Your task to perform on an android device: see sites visited before in the chrome app Image 0: 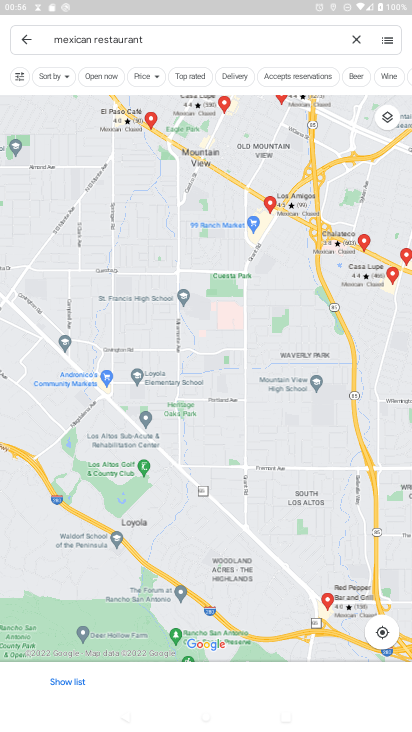
Step 0: click (189, 206)
Your task to perform on an android device: see sites visited before in the chrome app Image 1: 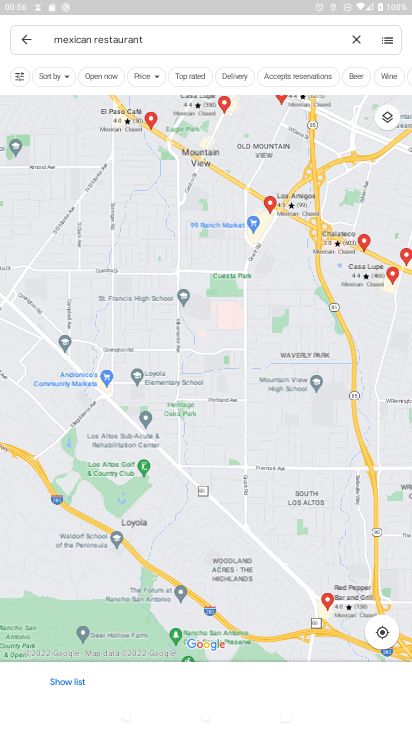
Step 1: click (15, 26)
Your task to perform on an android device: see sites visited before in the chrome app Image 2: 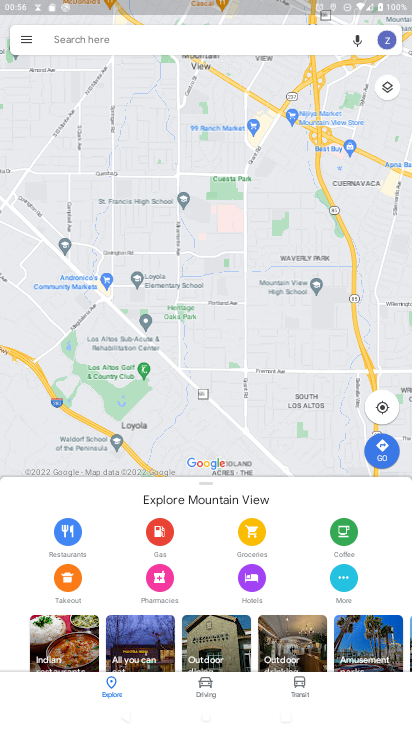
Step 2: press home button
Your task to perform on an android device: see sites visited before in the chrome app Image 3: 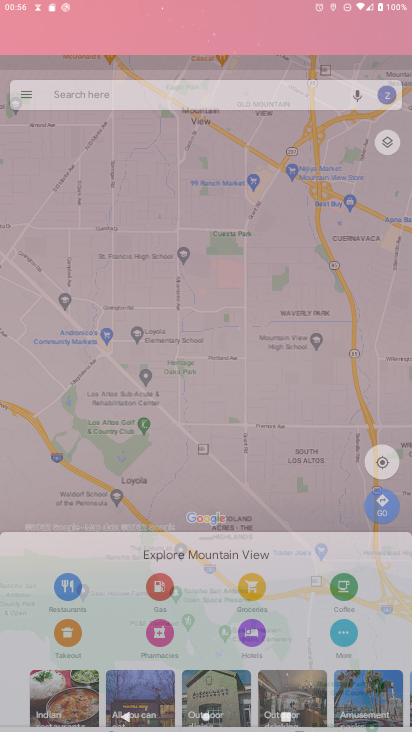
Step 3: drag from (159, 582) to (142, 2)
Your task to perform on an android device: see sites visited before in the chrome app Image 4: 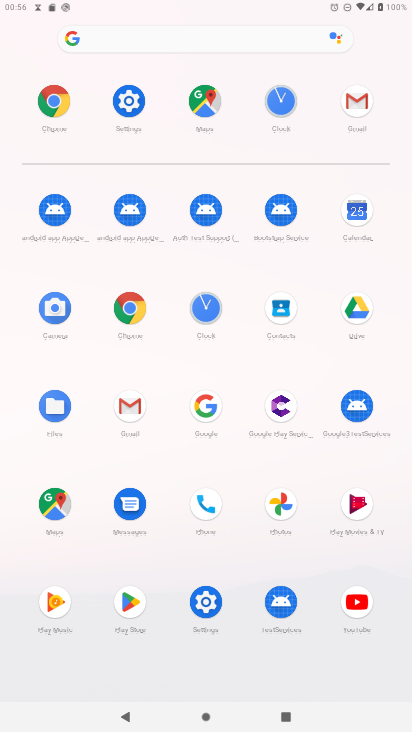
Step 4: click (136, 303)
Your task to perform on an android device: see sites visited before in the chrome app Image 5: 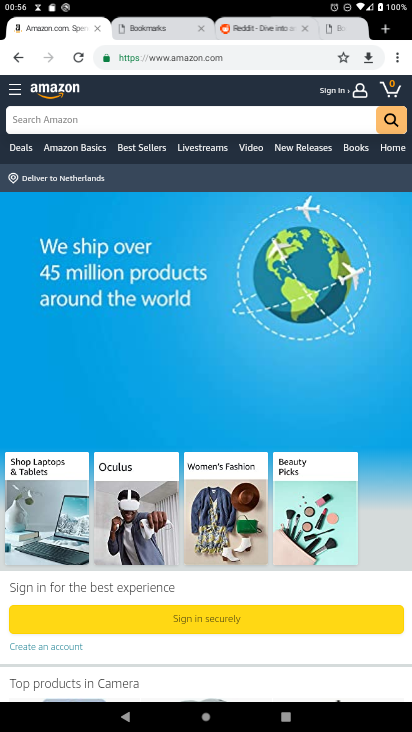
Step 5: task complete